Your task to perform on an android device: check data usage Image 0: 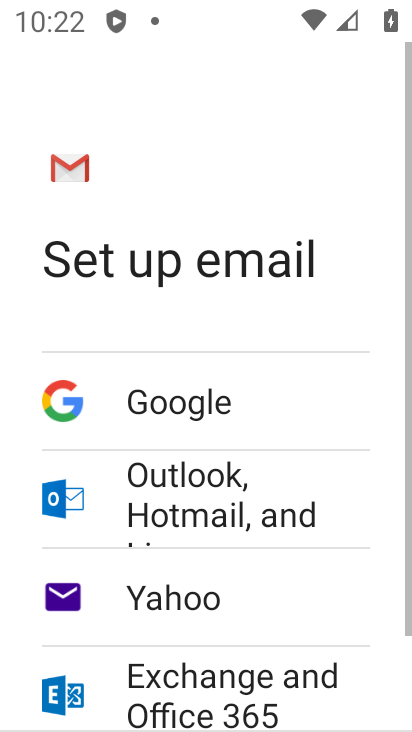
Step 0: press home button
Your task to perform on an android device: check data usage Image 1: 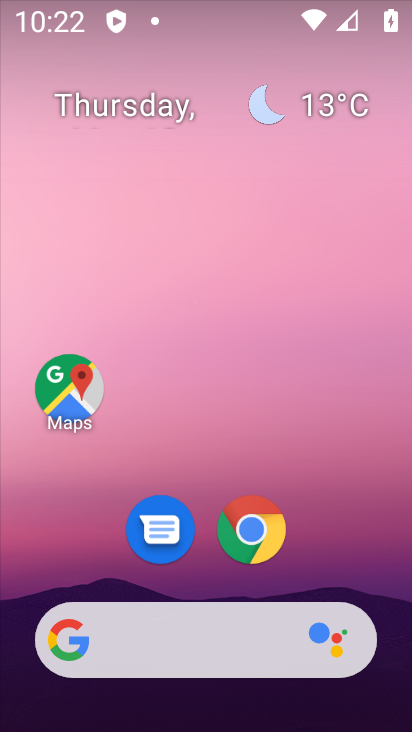
Step 1: drag from (318, 514) to (350, 0)
Your task to perform on an android device: check data usage Image 2: 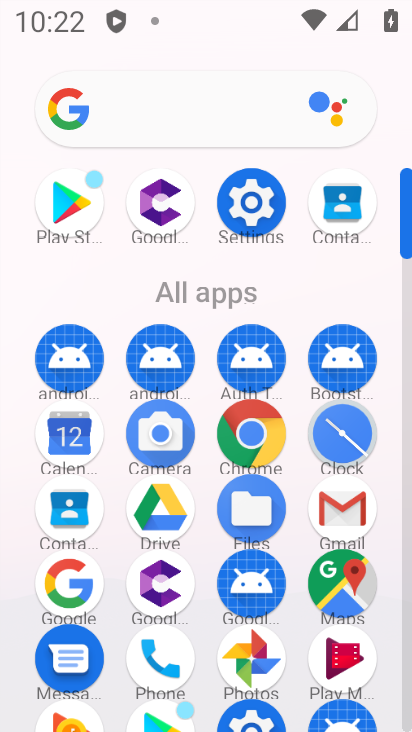
Step 2: click (242, 202)
Your task to perform on an android device: check data usage Image 3: 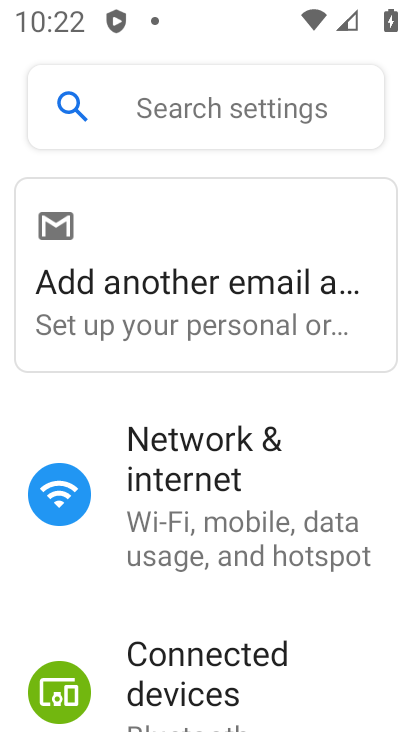
Step 3: click (237, 549)
Your task to perform on an android device: check data usage Image 4: 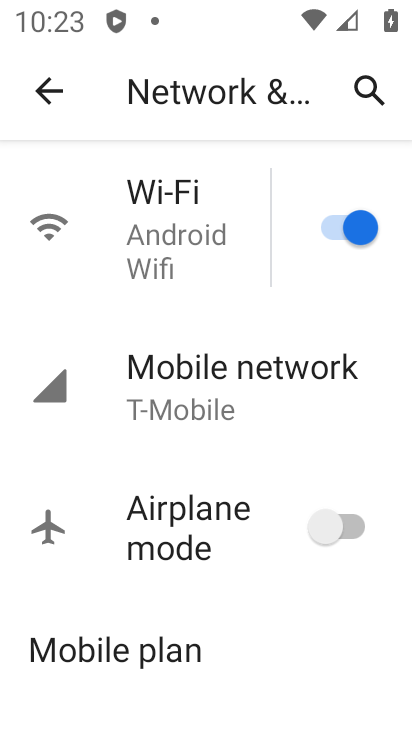
Step 4: click (170, 377)
Your task to perform on an android device: check data usage Image 5: 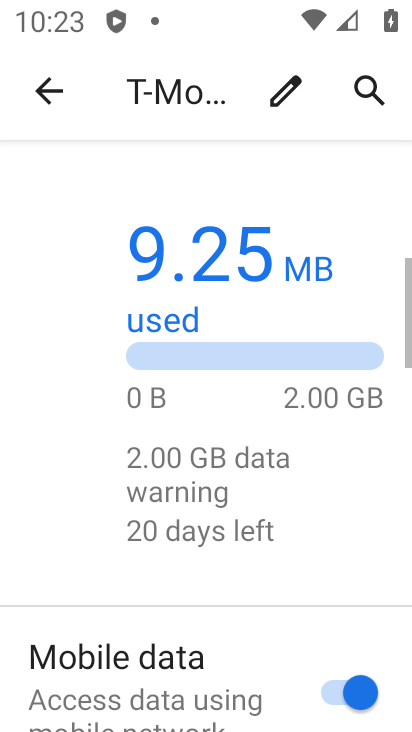
Step 5: drag from (204, 599) to (206, 267)
Your task to perform on an android device: check data usage Image 6: 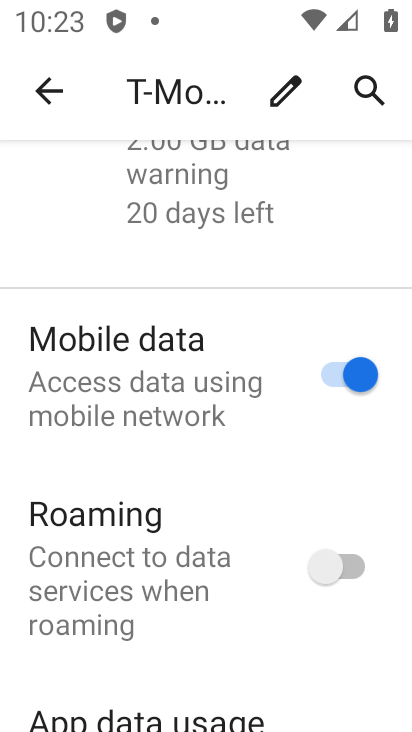
Step 6: drag from (147, 612) to (154, 314)
Your task to perform on an android device: check data usage Image 7: 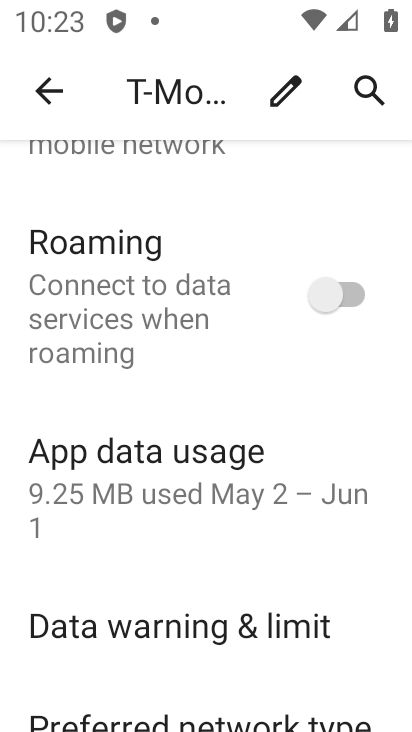
Step 7: click (150, 473)
Your task to perform on an android device: check data usage Image 8: 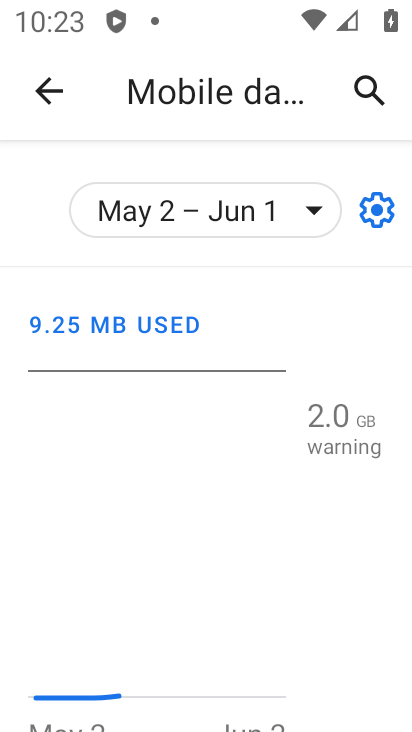
Step 8: task complete